Your task to perform on an android device: Go to accessibility settings Image 0: 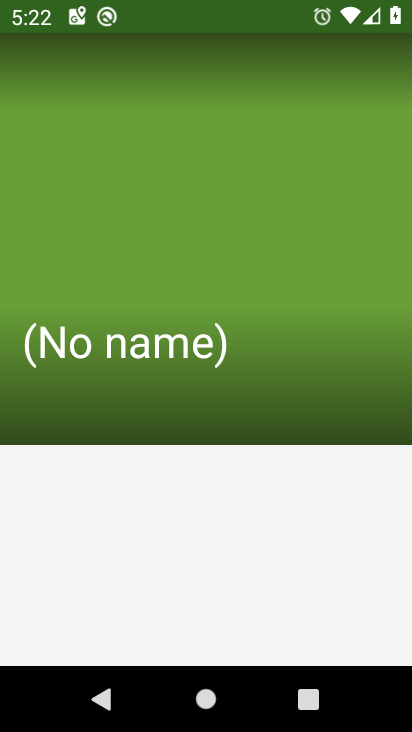
Step 0: press home button
Your task to perform on an android device: Go to accessibility settings Image 1: 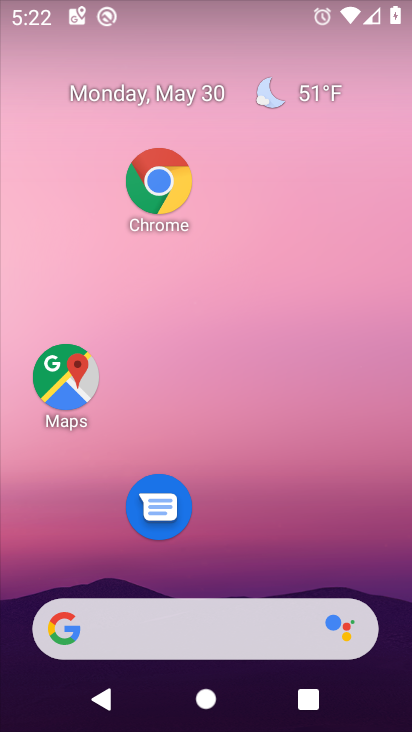
Step 1: drag from (333, 519) to (297, 30)
Your task to perform on an android device: Go to accessibility settings Image 2: 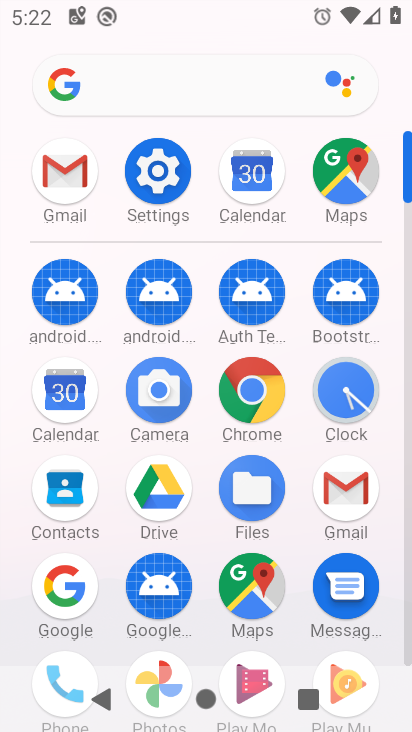
Step 2: click (174, 169)
Your task to perform on an android device: Go to accessibility settings Image 3: 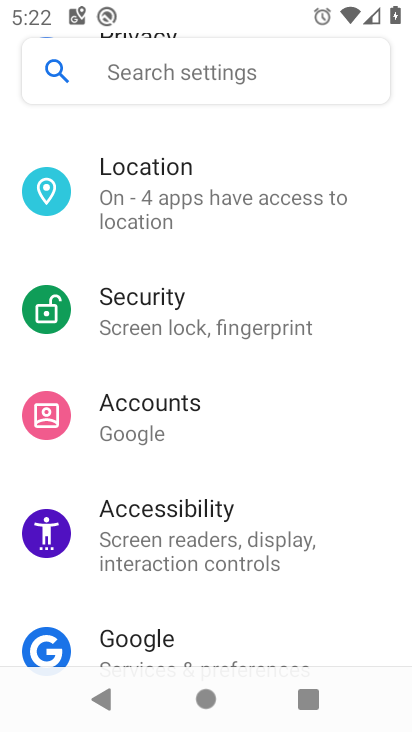
Step 3: drag from (255, 531) to (244, 7)
Your task to perform on an android device: Go to accessibility settings Image 4: 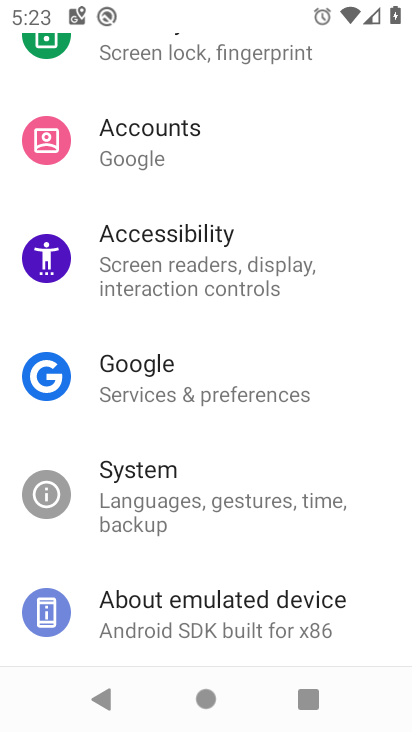
Step 4: click (237, 263)
Your task to perform on an android device: Go to accessibility settings Image 5: 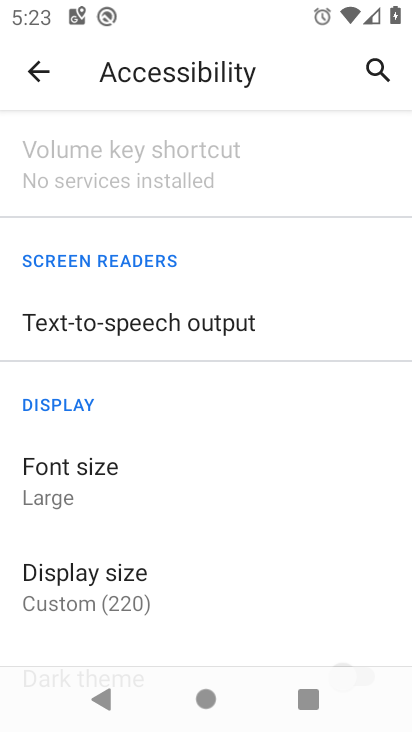
Step 5: task complete